Your task to perform on an android device: allow notifications from all sites in the chrome app Image 0: 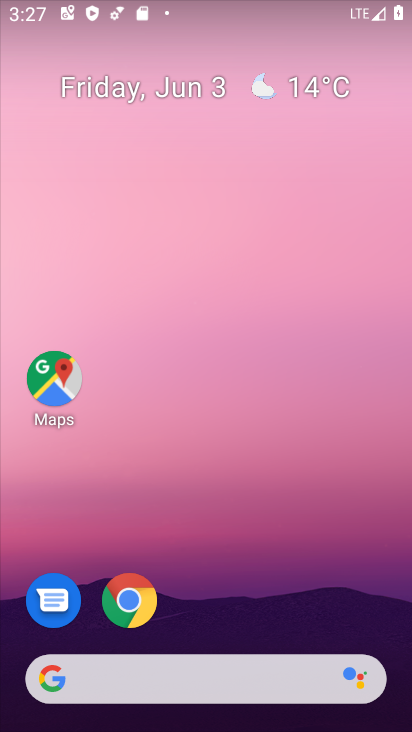
Step 0: click (128, 593)
Your task to perform on an android device: allow notifications from all sites in the chrome app Image 1: 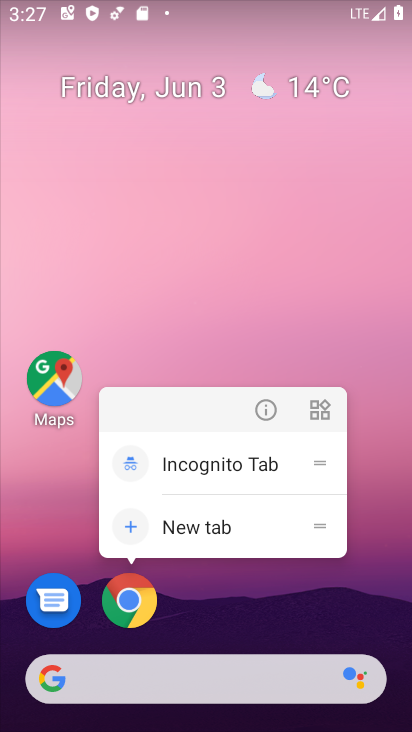
Step 1: click (269, 407)
Your task to perform on an android device: allow notifications from all sites in the chrome app Image 2: 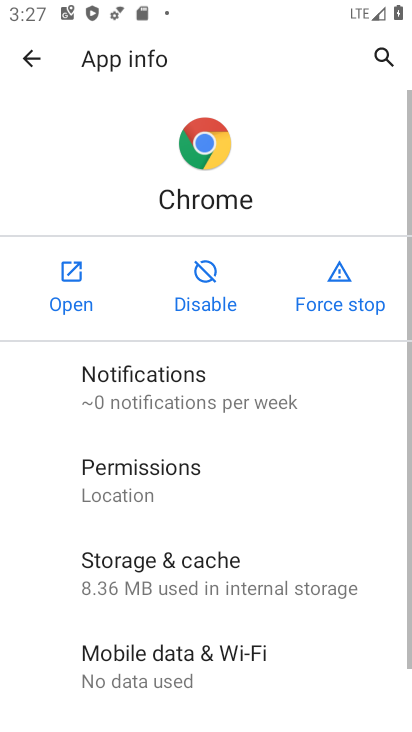
Step 2: click (149, 380)
Your task to perform on an android device: allow notifications from all sites in the chrome app Image 3: 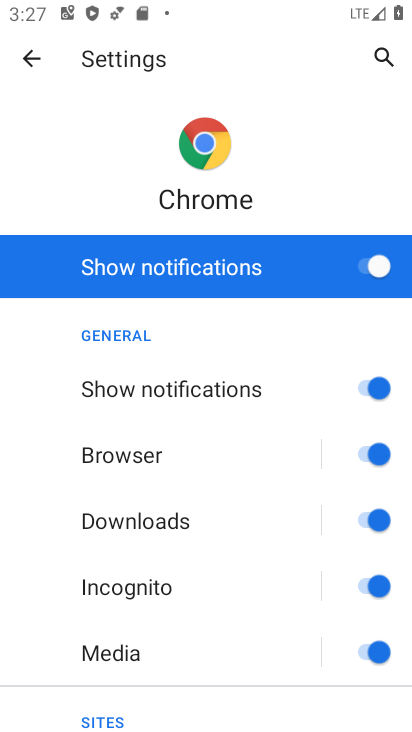
Step 3: task complete